Your task to perform on an android device: check google app version Image 0: 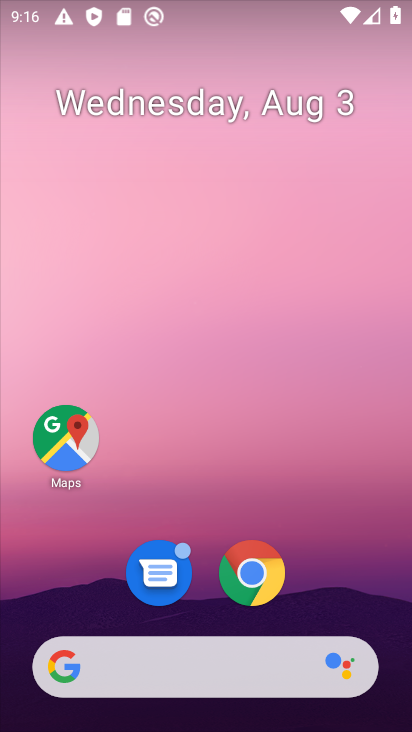
Step 0: drag from (211, 610) to (197, 77)
Your task to perform on an android device: check google app version Image 1: 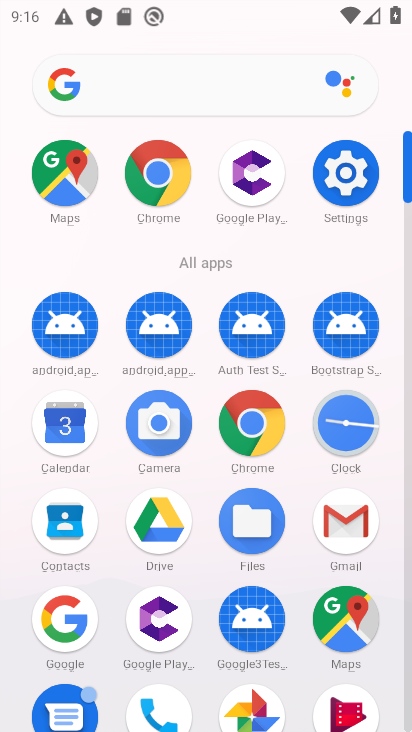
Step 1: click (73, 621)
Your task to perform on an android device: check google app version Image 2: 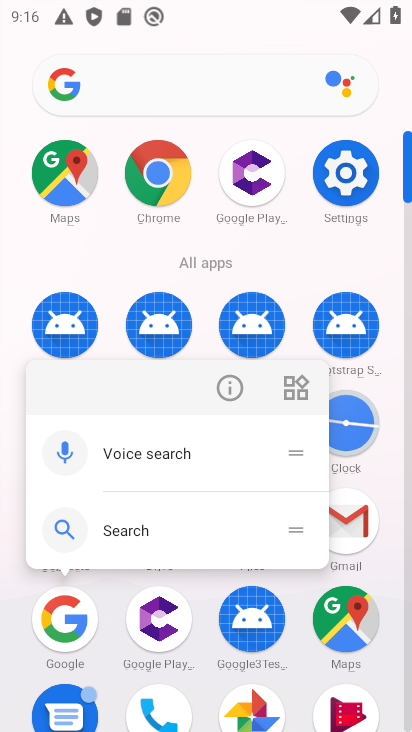
Step 2: click (230, 388)
Your task to perform on an android device: check google app version Image 3: 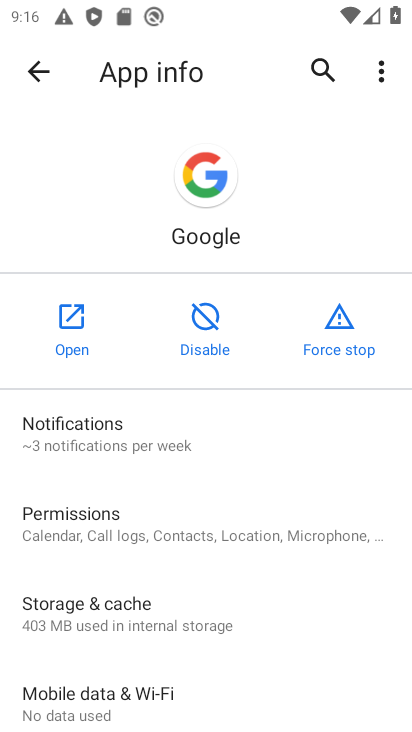
Step 3: drag from (188, 656) to (175, 154)
Your task to perform on an android device: check google app version Image 4: 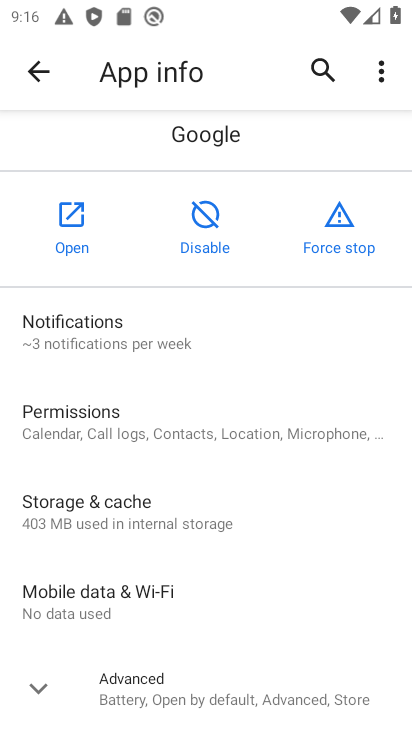
Step 4: click (132, 685)
Your task to perform on an android device: check google app version Image 5: 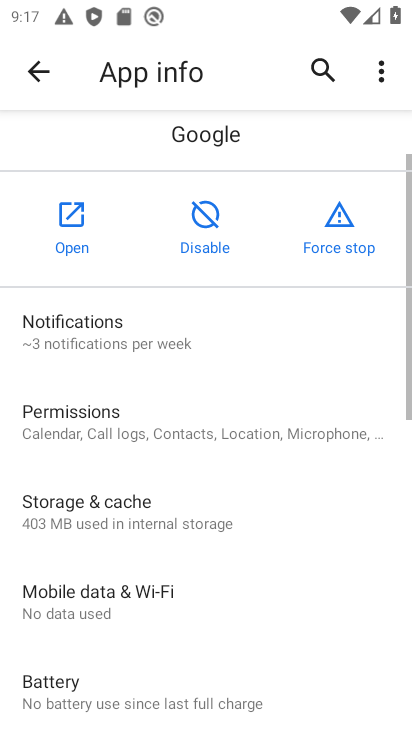
Step 5: task complete